Your task to perform on an android device: toggle translation in the chrome app Image 0: 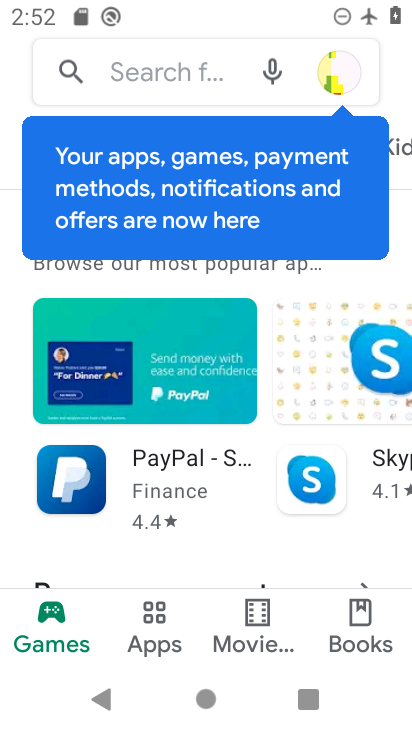
Step 0: press home button
Your task to perform on an android device: toggle translation in the chrome app Image 1: 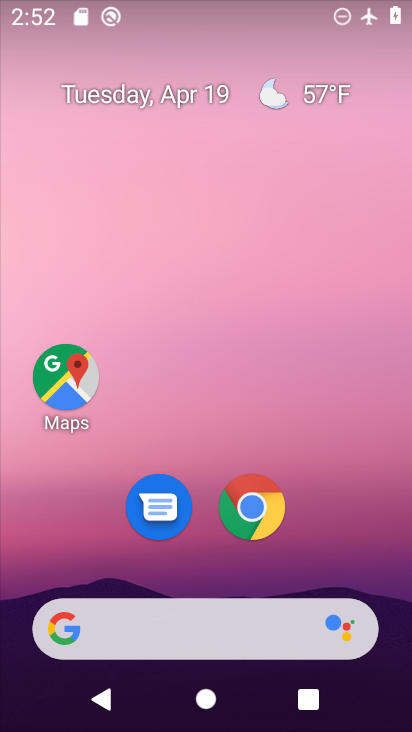
Step 1: click (262, 501)
Your task to perform on an android device: toggle translation in the chrome app Image 2: 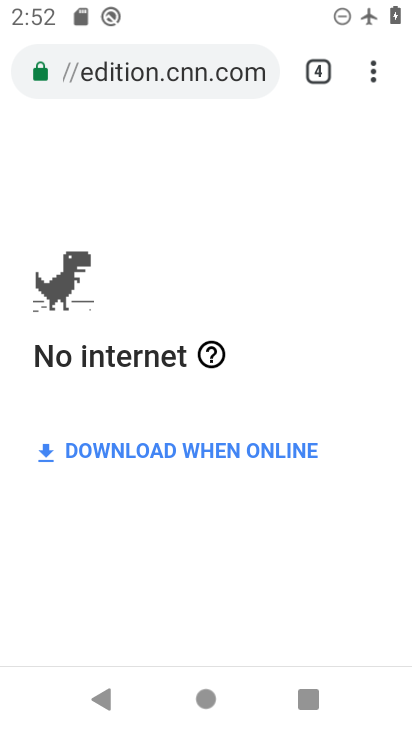
Step 2: click (376, 86)
Your task to perform on an android device: toggle translation in the chrome app Image 3: 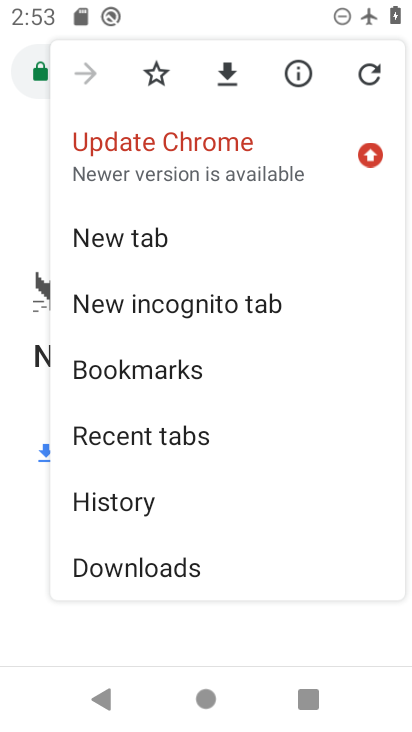
Step 3: drag from (256, 546) to (222, 234)
Your task to perform on an android device: toggle translation in the chrome app Image 4: 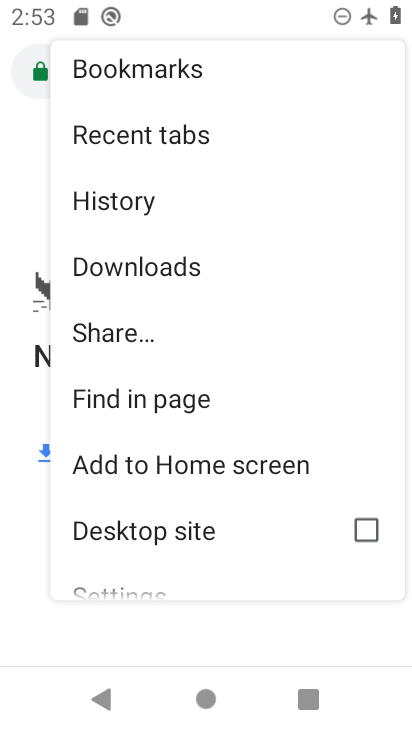
Step 4: click (199, 576)
Your task to perform on an android device: toggle translation in the chrome app Image 5: 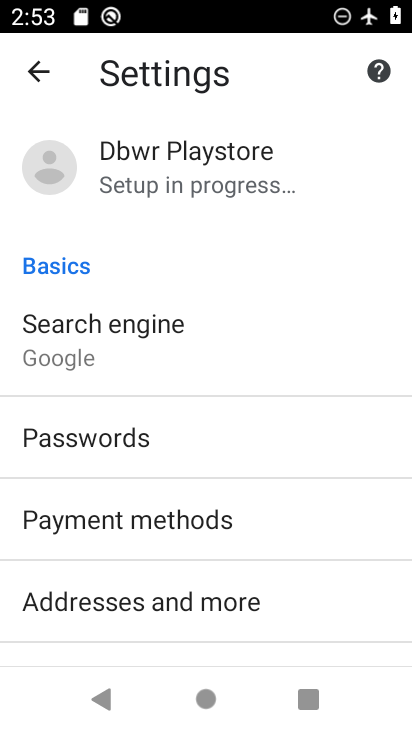
Step 5: drag from (198, 514) to (238, 100)
Your task to perform on an android device: toggle translation in the chrome app Image 6: 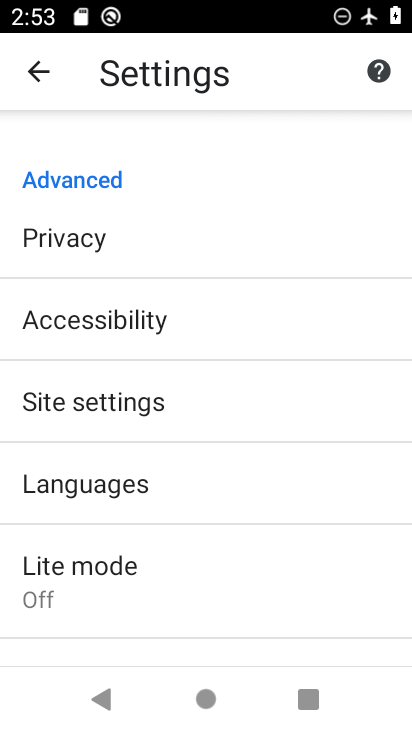
Step 6: click (243, 516)
Your task to perform on an android device: toggle translation in the chrome app Image 7: 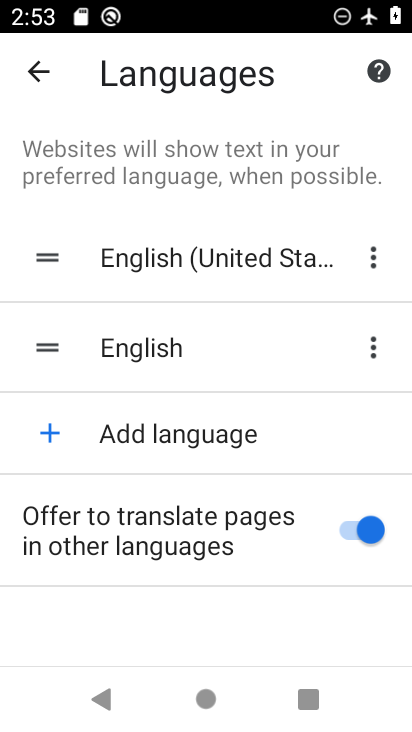
Step 7: click (210, 542)
Your task to perform on an android device: toggle translation in the chrome app Image 8: 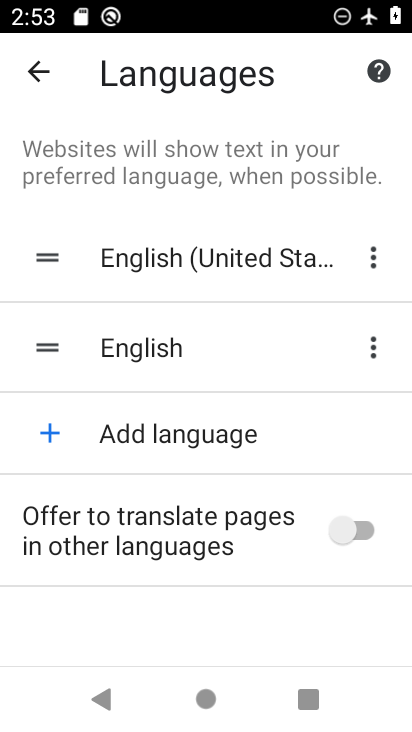
Step 8: task complete